Your task to perform on an android device: Open calendar and show me the third week of next month Image 0: 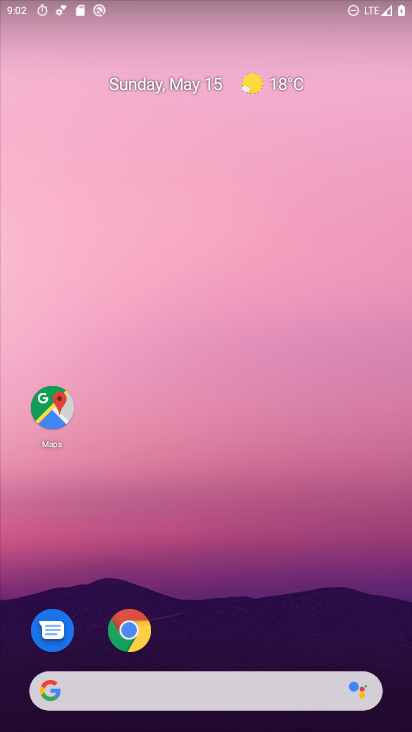
Step 0: click (224, 4)
Your task to perform on an android device: Open calendar and show me the third week of next month Image 1: 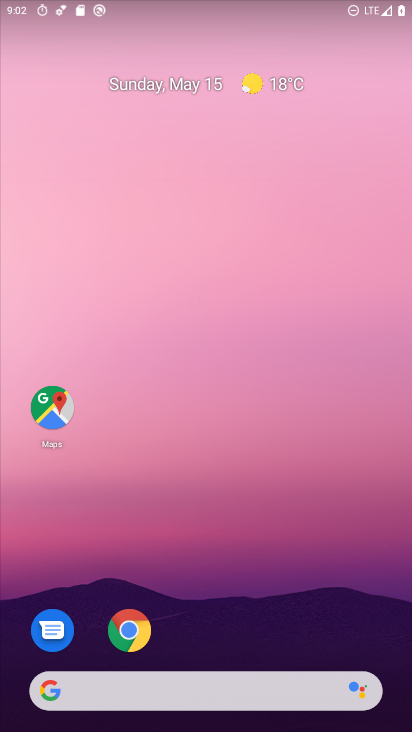
Step 1: drag from (220, 556) to (262, 113)
Your task to perform on an android device: Open calendar and show me the third week of next month Image 2: 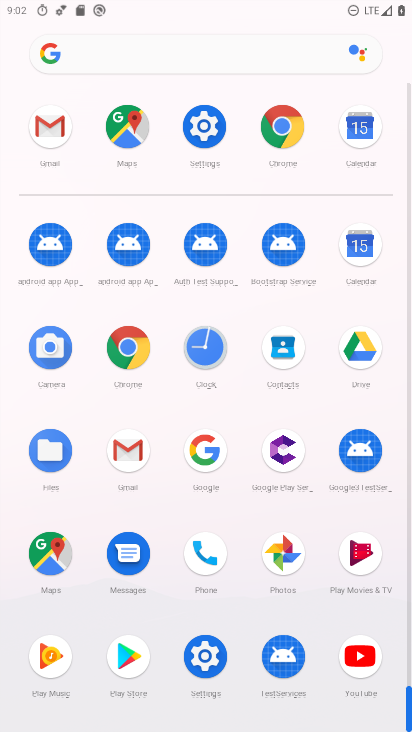
Step 2: click (348, 247)
Your task to perform on an android device: Open calendar and show me the third week of next month Image 3: 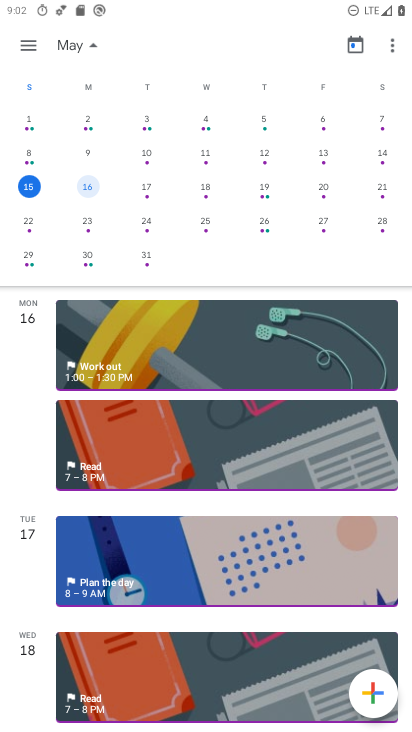
Step 3: click (3, 182)
Your task to perform on an android device: Open calendar and show me the third week of next month Image 4: 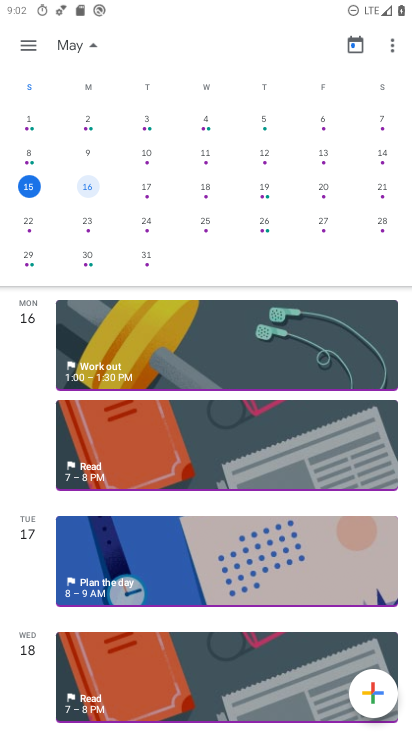
Step 4: drag from (388, 175) to (24, 180)
Your task to perform on an android device: Open calendar and show me the third week of next month Image 5: 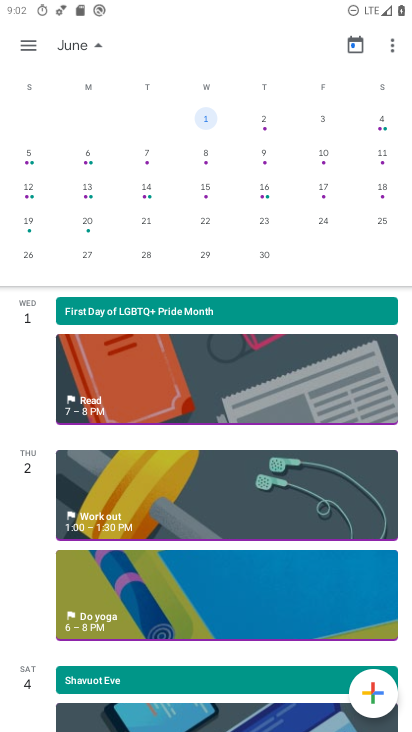
Step 5: click (267, 185)
Your task to perform on an android device: Open calendar and show me the third week of next month Image 6: 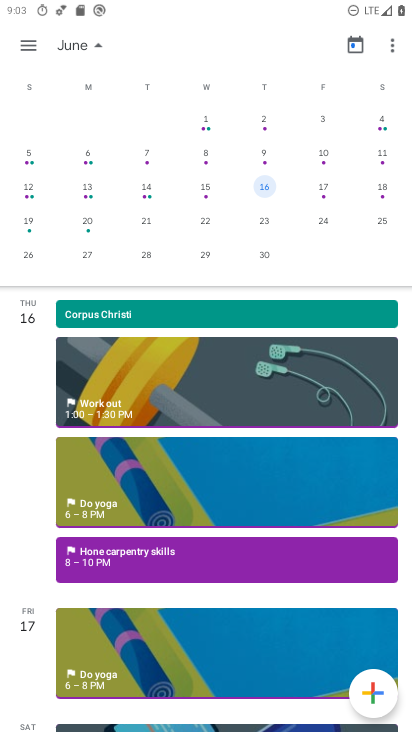
Step 6: task complete